Your task to perform on an android device: Do I have any events today? Image 0: 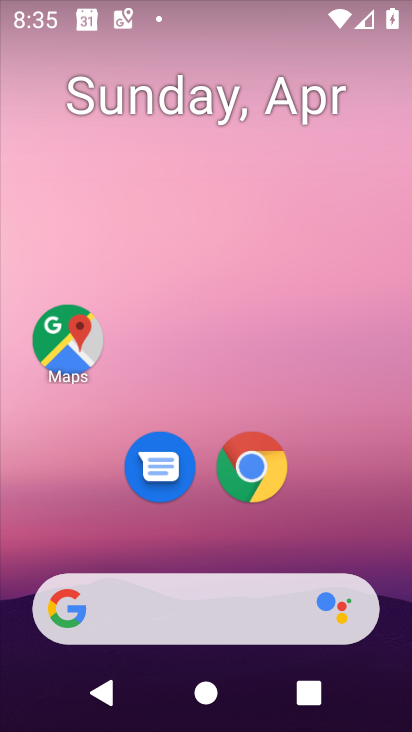
Step 0: drag from (324, 523) to (410, 29)
Your task to perform on an android device: Do I have any events today? Image 1: 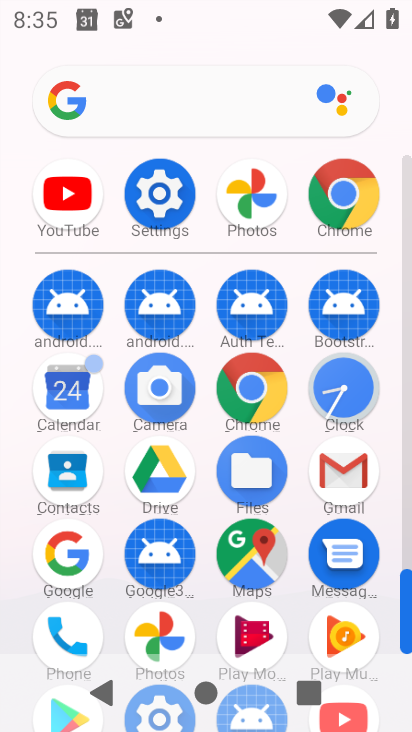
Step 1: click (68, 385)
Your task to perform on an android device: Do I have any events today? Image 2: 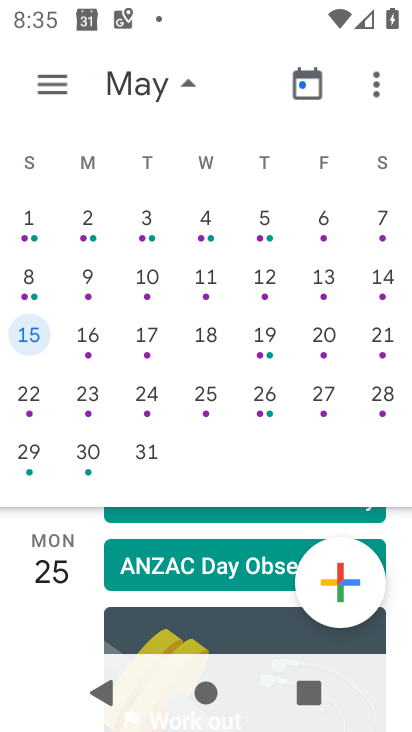
Step 2: drag from (23, 300) to (409, 408)
Your task to perform on an android device: Do I have any events today? Image 3: 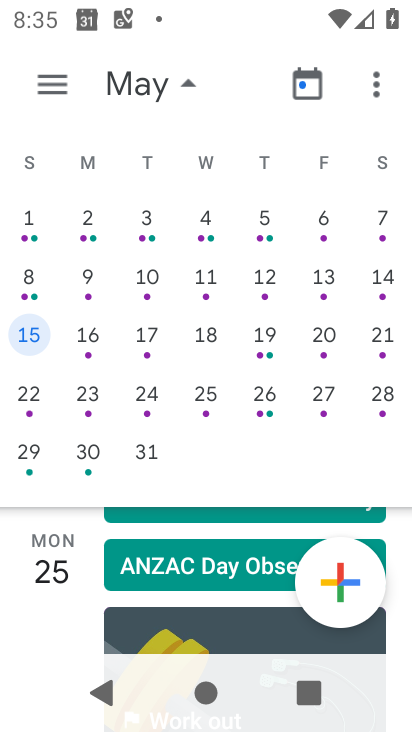
Step 3: drag from (72, 304) to (398, 296)
Your task to perform on an android device: Do I have any events today? Image 4: 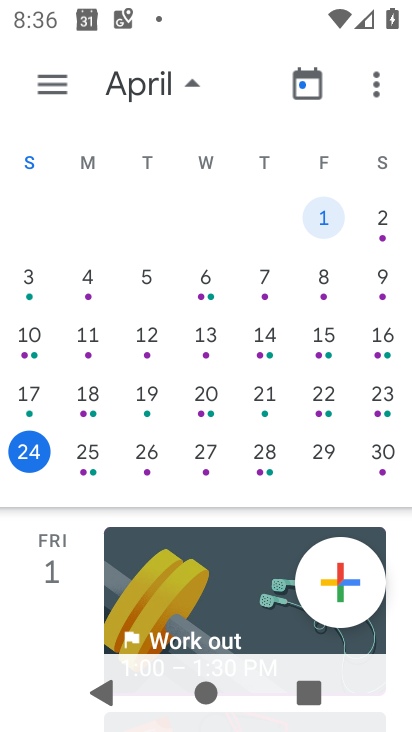
Step 4: click (38, 462)
Your task to perform on an android device: Do I have any events today? Image 5: 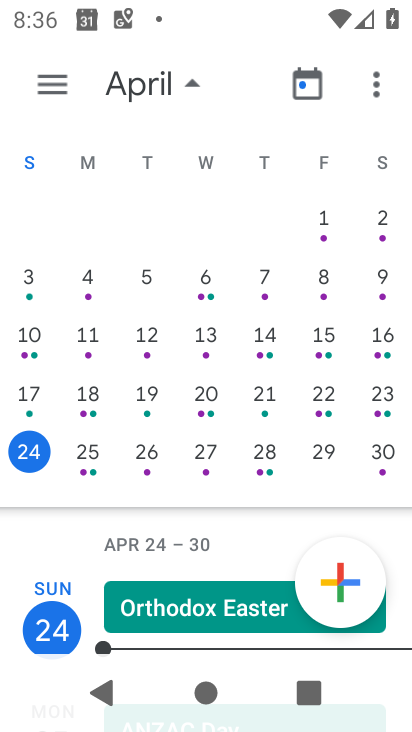
Step 5: task complete